Your task to perform on an android device: Who is the president of France? Image 0: 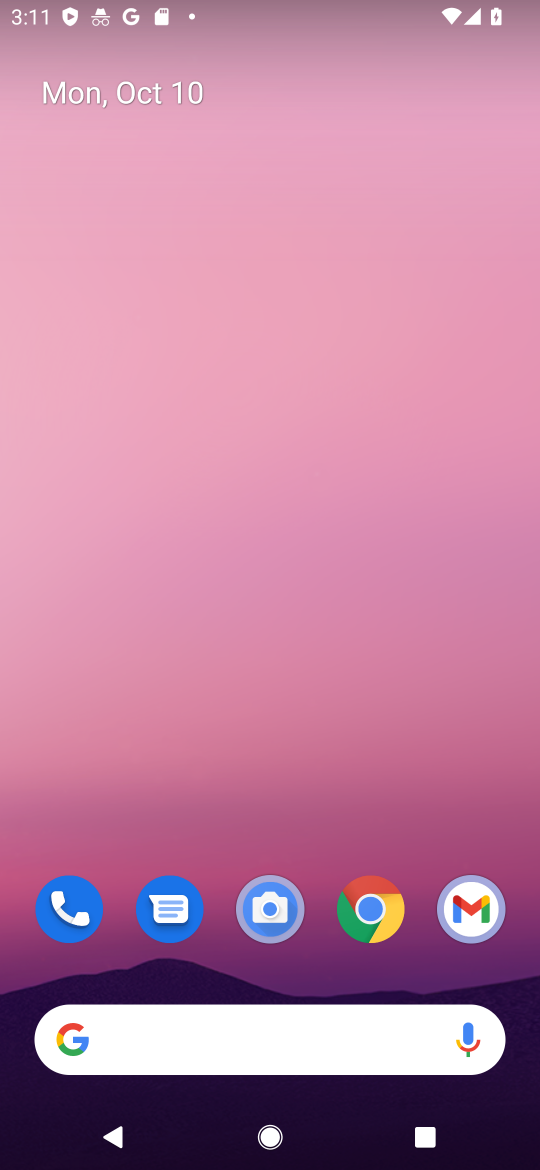
Step 0: click (366, 909)
Your task to perform on an android device: Who is the president of France? Image 1: 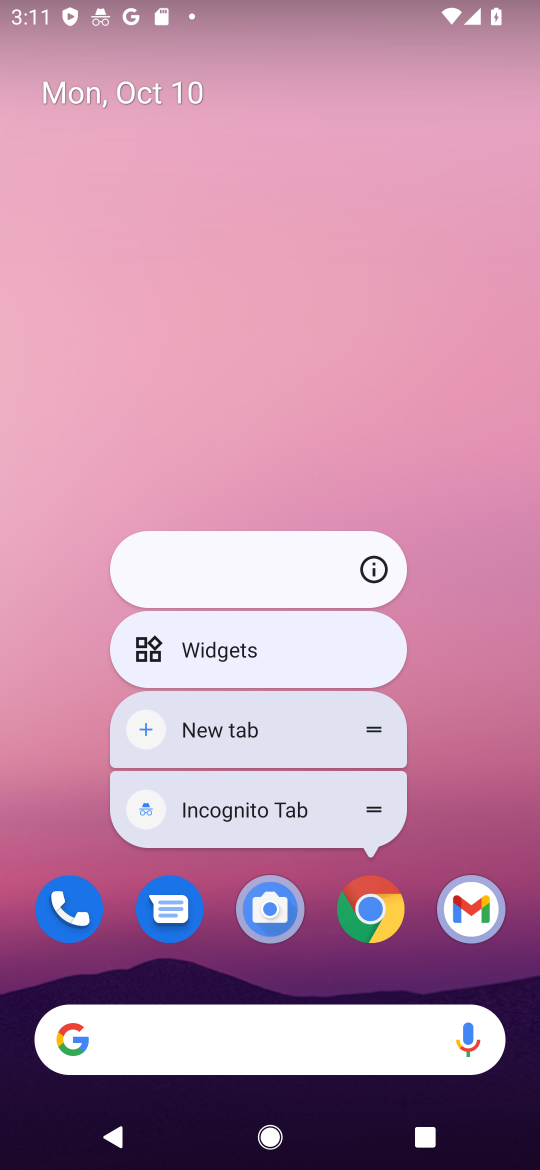
Step 1: click (369, 899)
Your task to perform on an android device: Who is the president of France? Image 2: 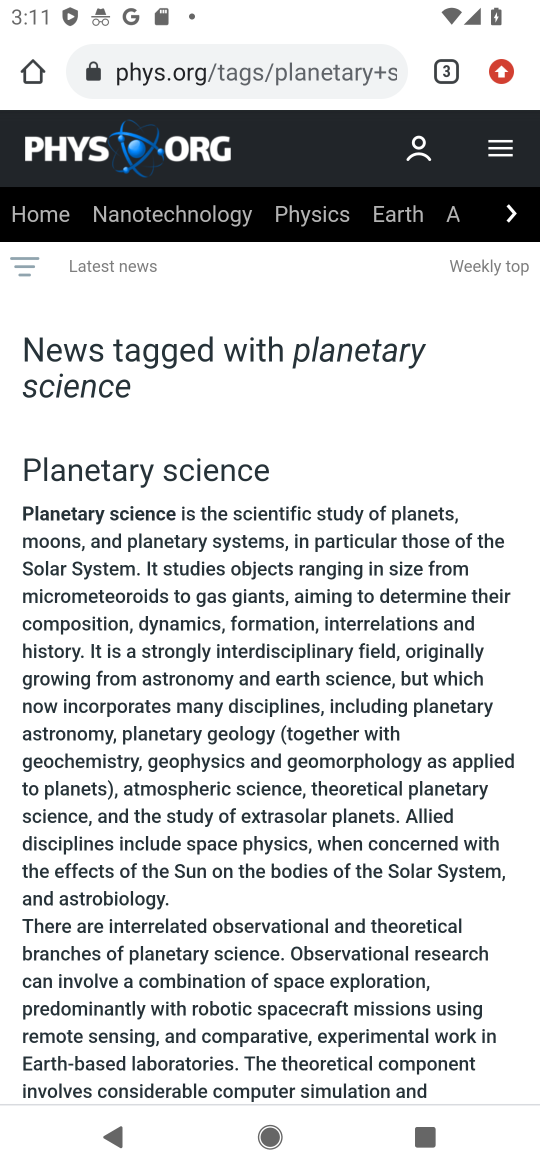
Step 2: click (230, 44)
Your task to perform on an android device: Who is the president of France? Image 3: 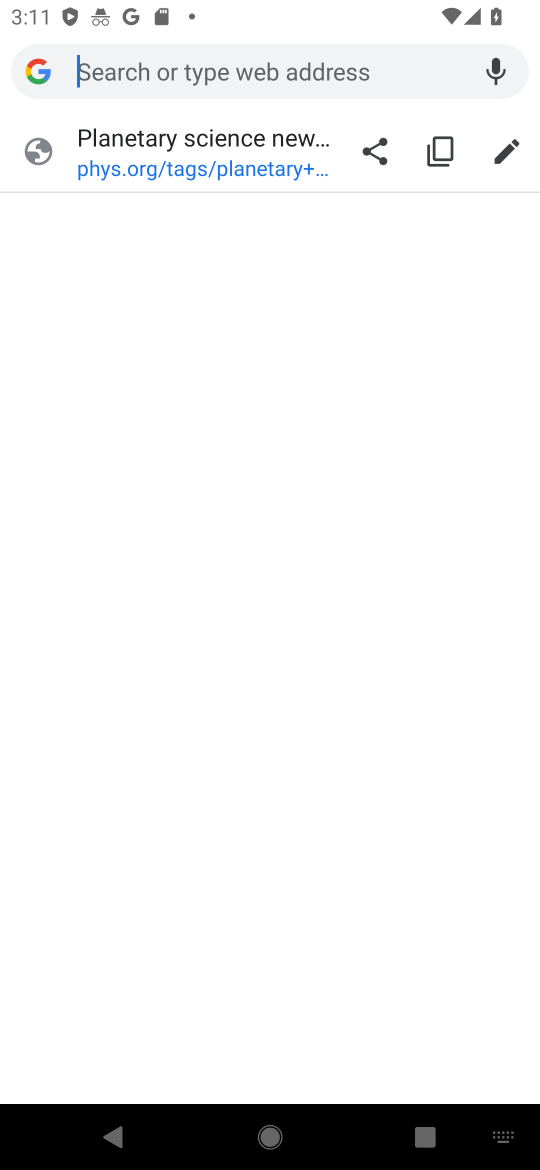
Step 3: type "president of france"
Your task to perform on an android device: Who is the president of France? Image 4: 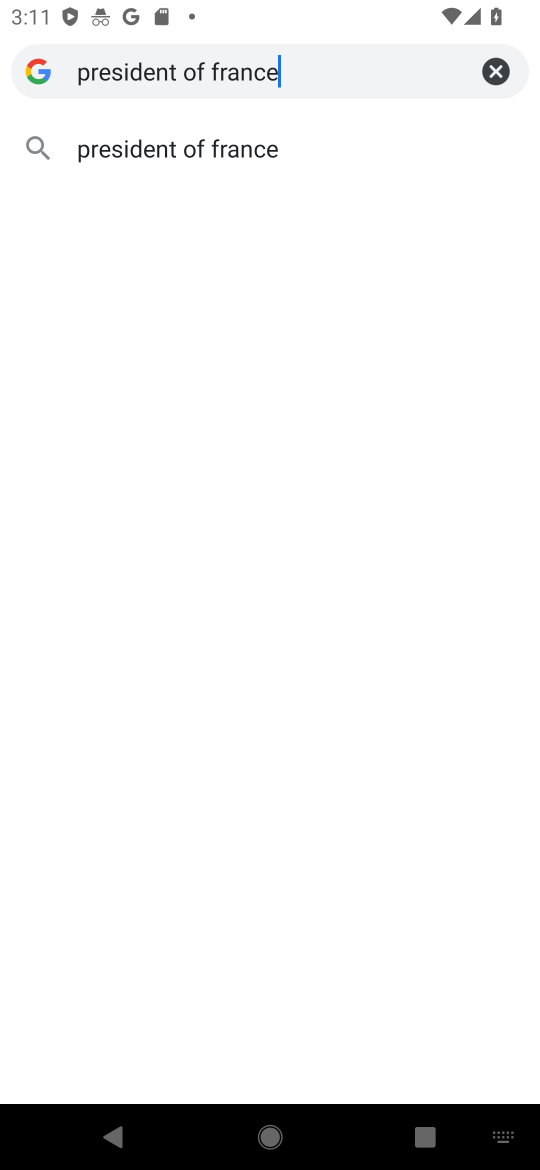
Step 4: click (147, 152)
Your task to perform on an android device: Who is the president of France? Image 5: 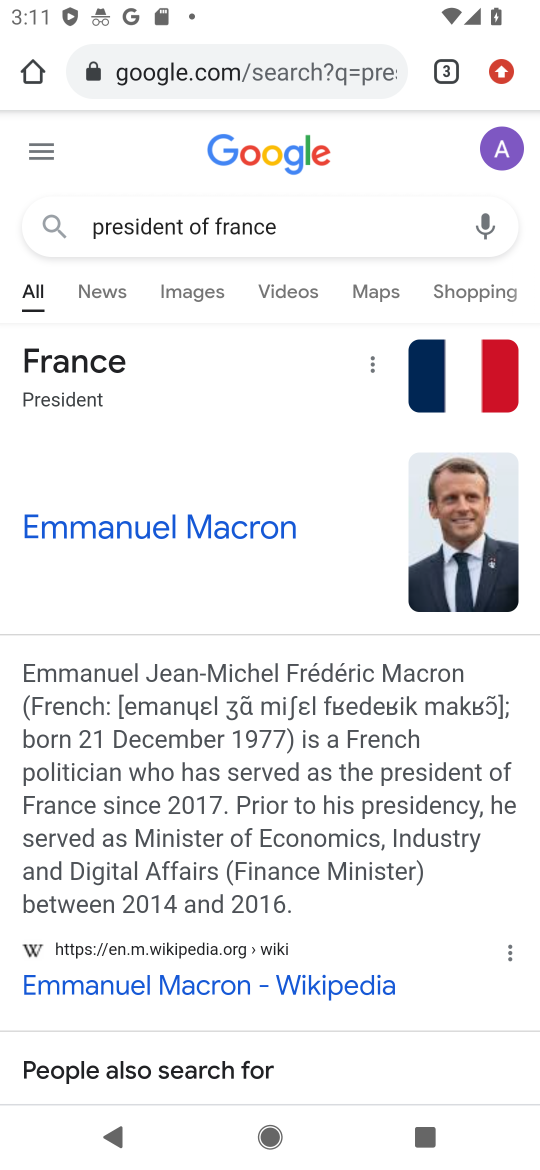
Step 5: task complete